Your task to perform on an android device: turn on data saver in the chrome app Image 0: 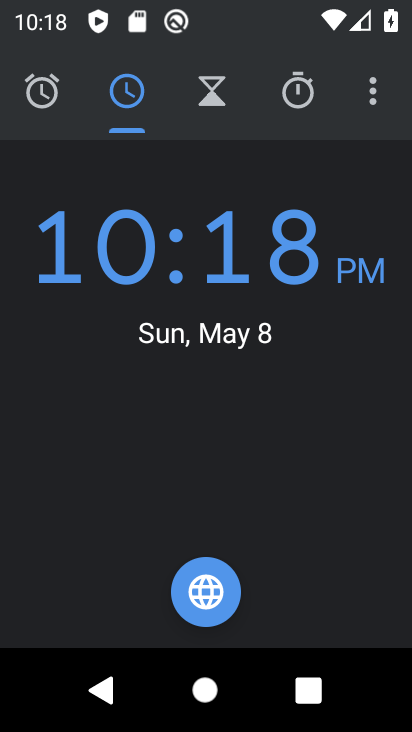
Step 0: press home button
Your task to perform on an android device: turn on data saver in the chrome app Image 1: 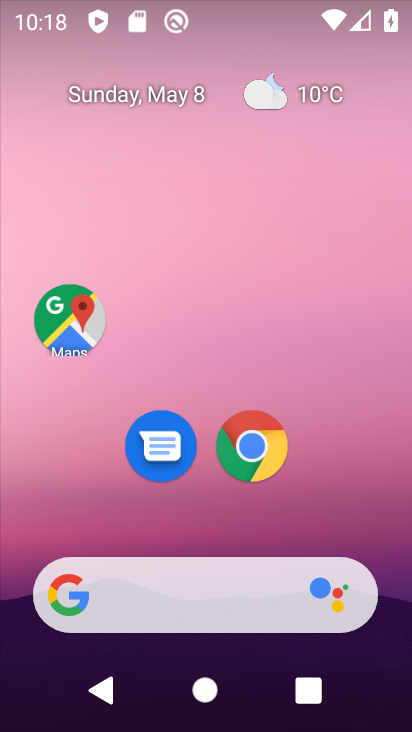
Step 1: click (262, 447)
Your task to perform on an android device: turn on data saver in the chrome app Image 2: 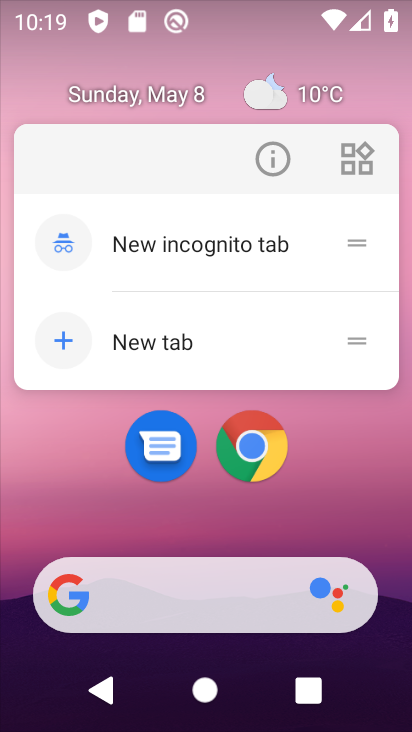
Step 2: click (255, 444)
Your task to perform on an android device: turn on data saver in the chrome app Image 3: 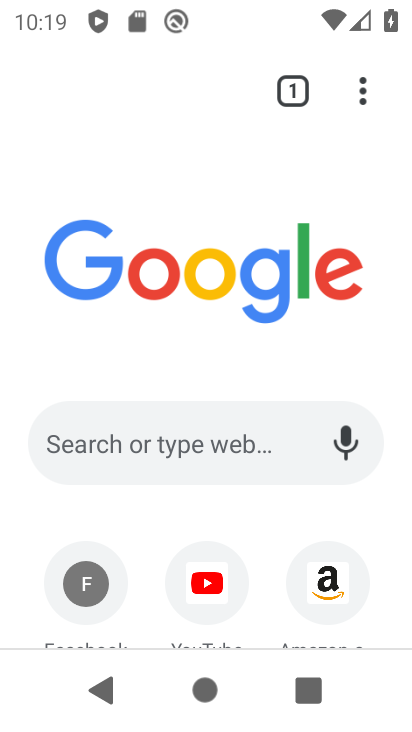
Step 3: drag from (361, 96) to (96, 481)
Your task to perform on an android device: turn on data saver in the chrome app Image 4: 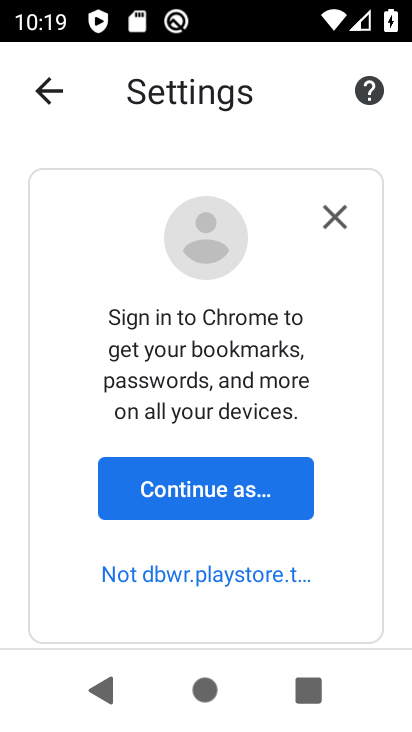
Step 4: drag from (307, 600) to (286, 79)
Your task to perform on an android device: turn on data saver in the chrome app Image 5: 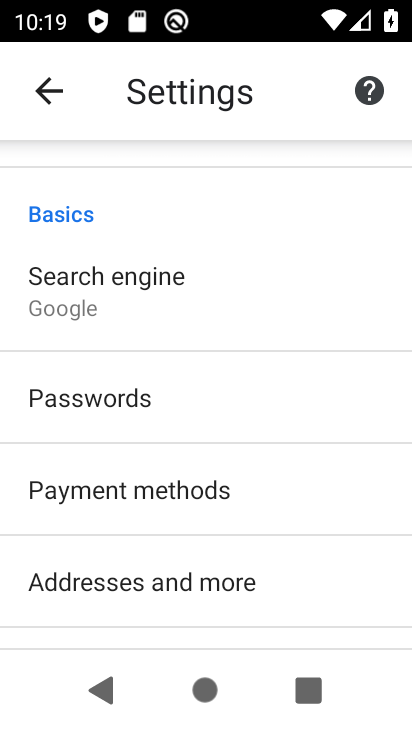
Step 5: drag from (304, 474) to (273, 56)
Your task to perform on an android device: turn on data saver in the chrome app Image 6: 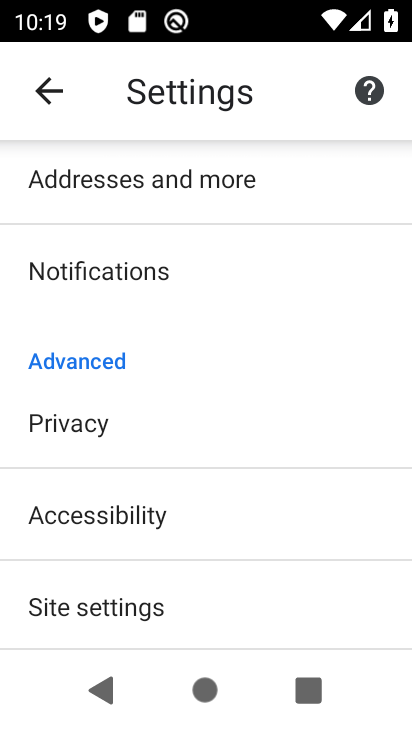
Step 6: drag from (226, 543) to (226, 194)
Your task to perform on an android device: turn on data saver in the chrome app Image 7: 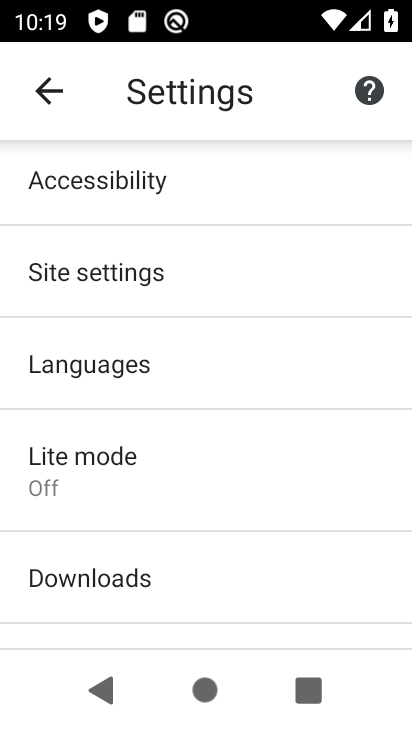
Step 7: click (104, 465)
Your task to perform on an android device: turn on data saver in the chrome app Image 8: 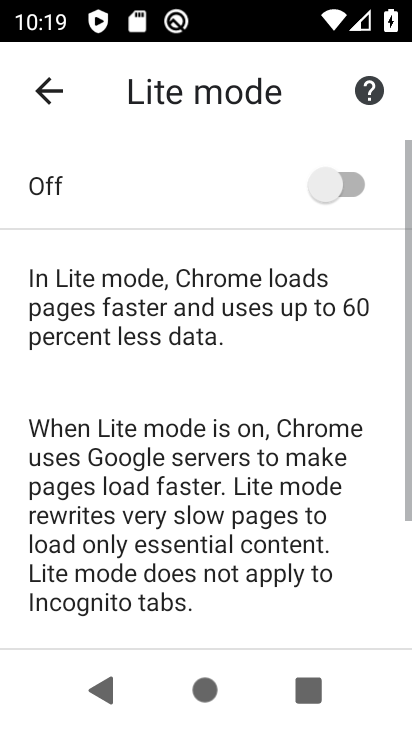
Step 8: click (320, 178)
Your task to perform on an android device: turn on data saver in the chrome app Image 9: 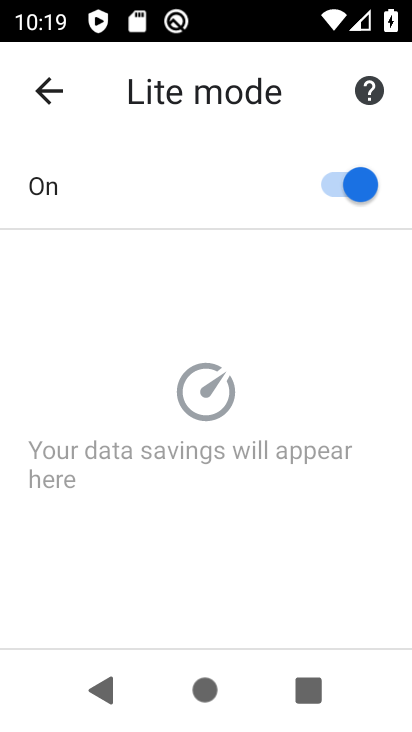
Step 9: task complete